Your task to perform on an android device: Open Google Chrome Image 0: 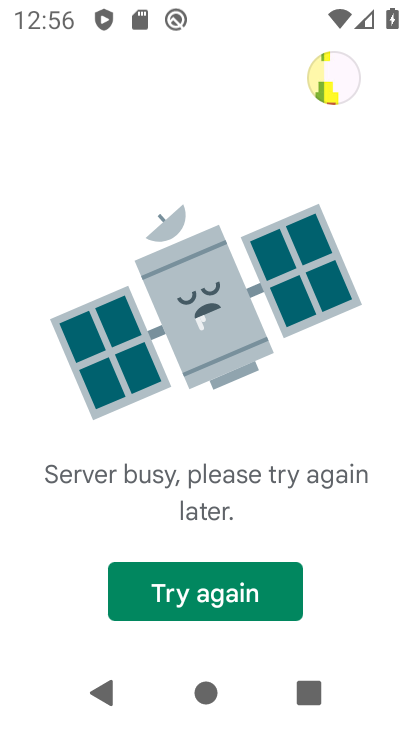
Step 0: press home button
Your task to perform on an android device: Open Google Chrome Image 1: 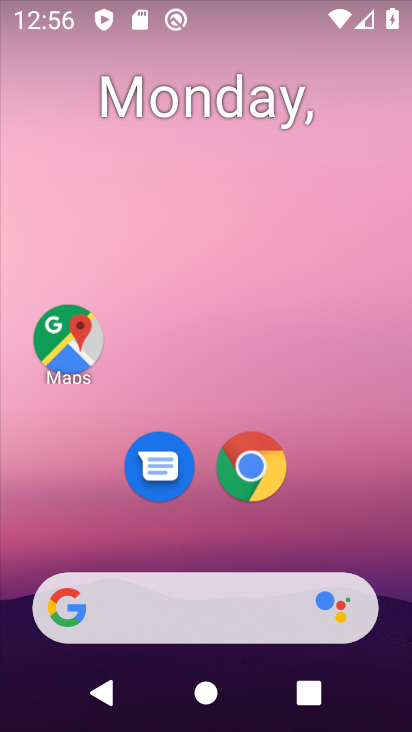
Step 1: click (258, 462)
Your task to perform on an android device: Open Google Chrome Image 2: 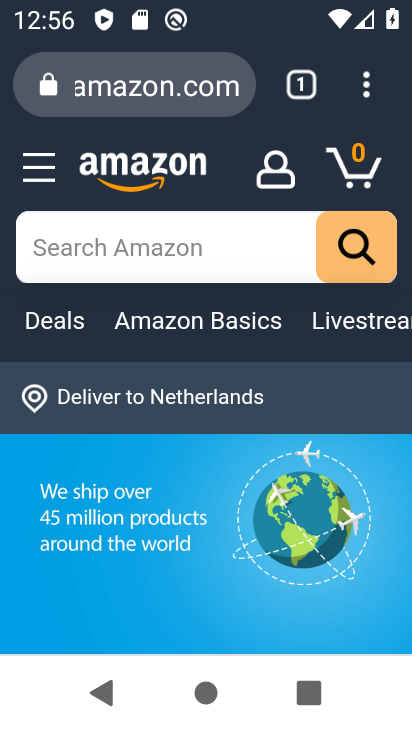
Step 2: task complete